Your task to perform on an android device: Go to internet settings Image 0: 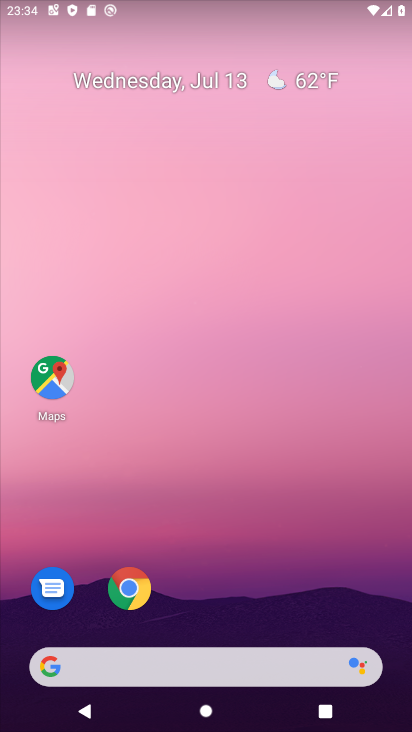
Step 0: drag from (195, 604) to (193, 311)
Your task to perform on an android device: Go to internet settings Image 1: 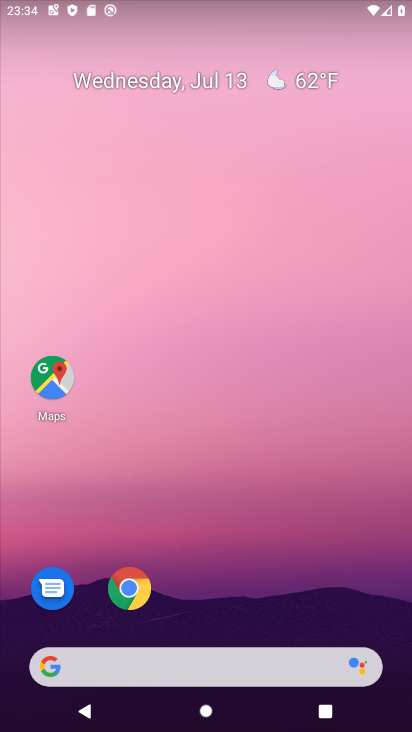
Step 1: drag from (229, 649) to (232, 302)
Your task to perform on an android device: Go to internet settings Image 2: 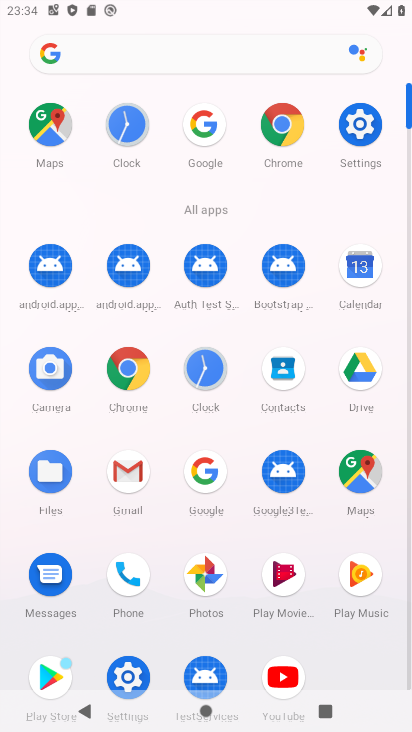
Step 2: click (348, 125)
Your task to perform on an android device: Go to internet settings Image 3: 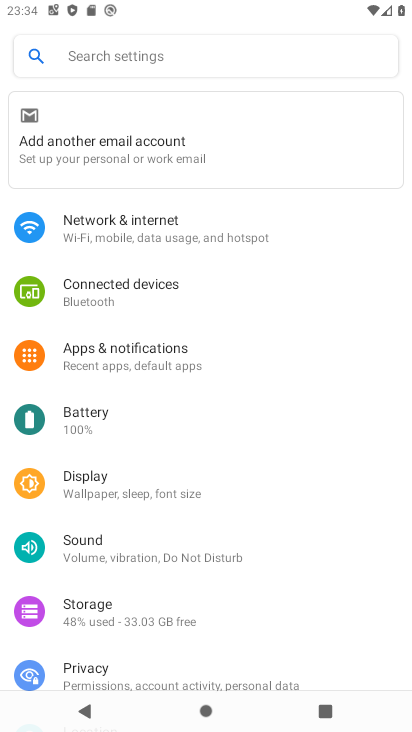
Step 3: click (173, 232)
Your task to perform on an android device: Go to internet settings Image 4: 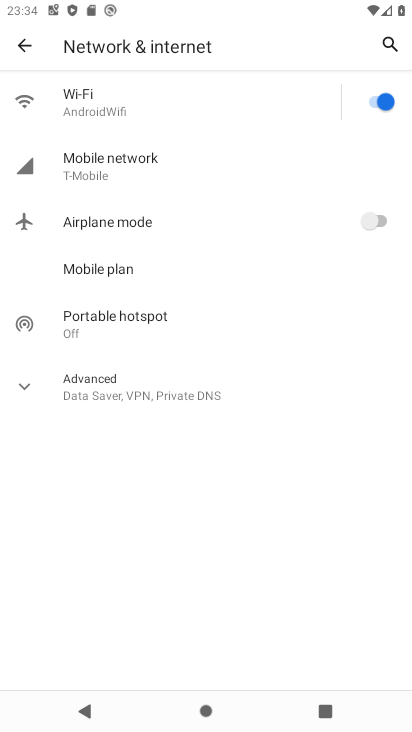
Step 4: click (126, 376)
Your task to perform on an android device: Go to internet settings Image 5: 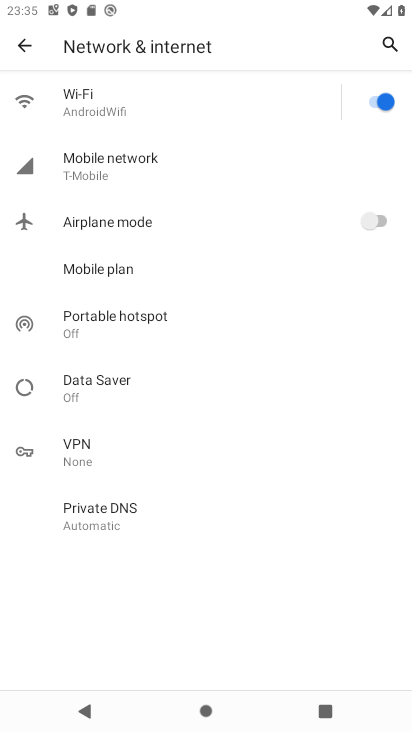
Step 5: task complete